Your task to perform on an android device: Open notification settings Image 0: 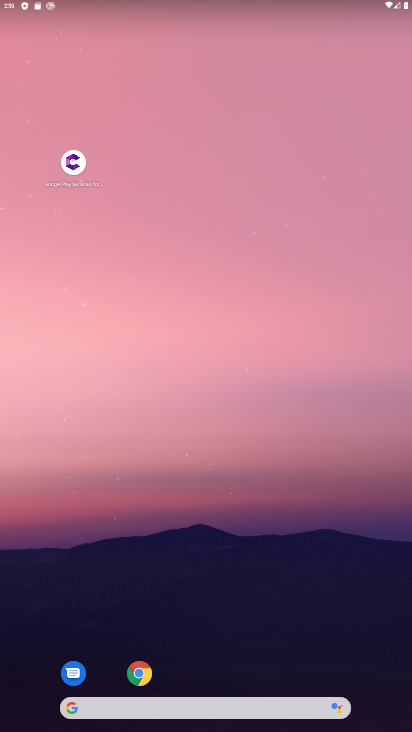
Step 0: press home button
Your task to perform on an android device: Open notification settings Image 1: 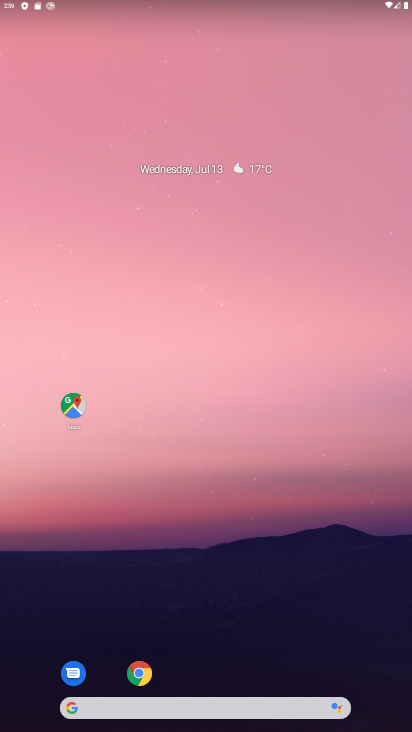
Step 1: drag from (239, 611) to (246, 153)
Your task to perform on an android device: Open notification settings Image 2: 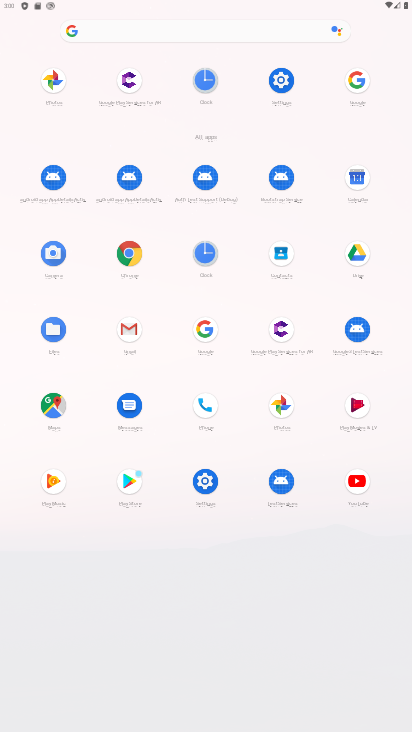
Step 2: click (282, 85)
Your task to perform on an android device: Open notification settings Image 3: 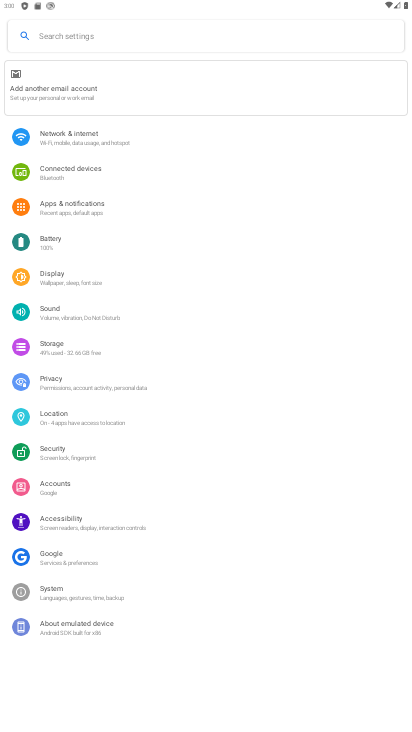
Step 3: click (93, 203)
Your task to perform on an android device: Open notification settings Image 4: 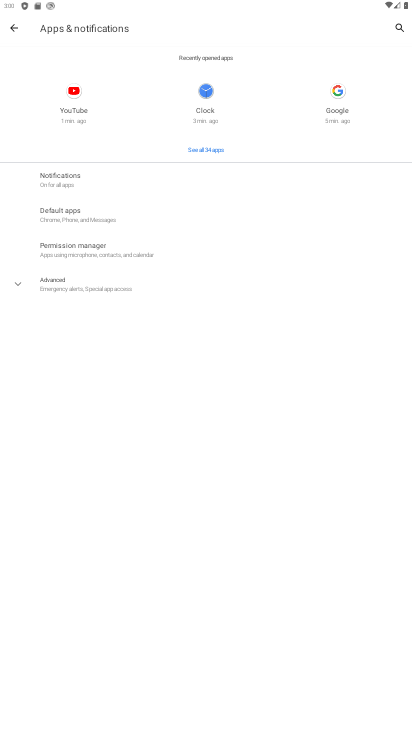
Step 4: drag from (31, 290) to (52, 191)
Your task to perform on an android device: Open notification settings Image 5: 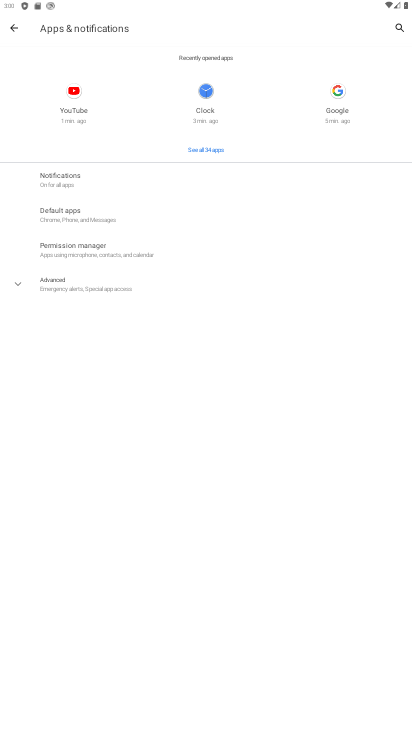
Step 5: click (64, 181)
Your task to perform on an android device: Open notification settings Image 6: 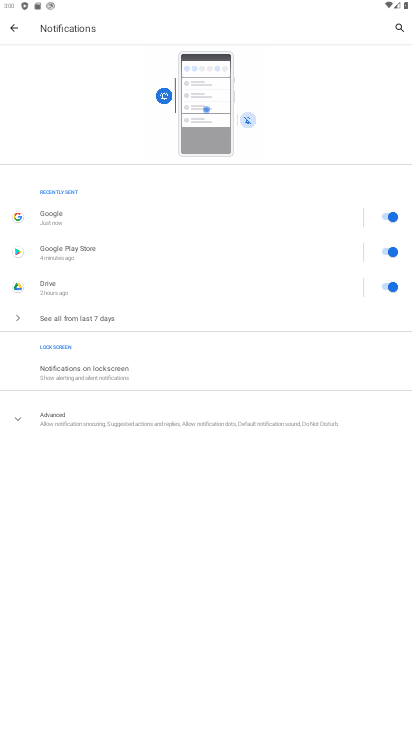
Step 6: task complete